Your task to perform on an android device: Go to Maps Image 0: 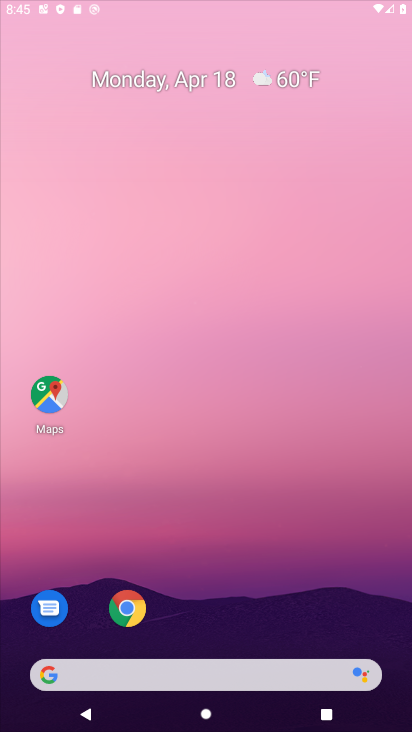
Step 0: click (237, 287)
Your task to perform on an android device: Go to Maps Image 1: 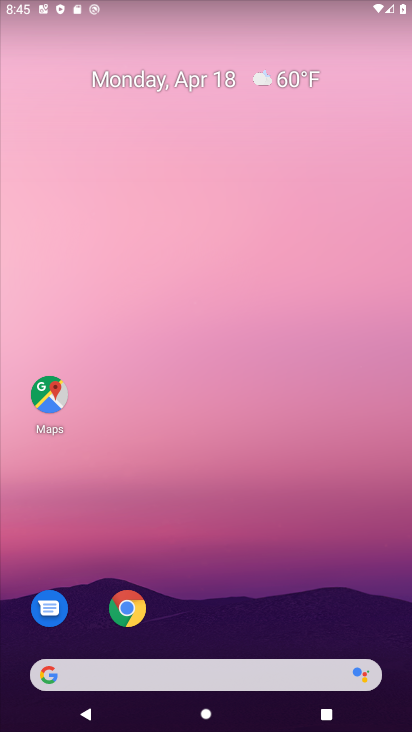
Step 1: drag from (162, 655) to (231, 391)
Your task to perform on an android device: Go to Maps Image 2: 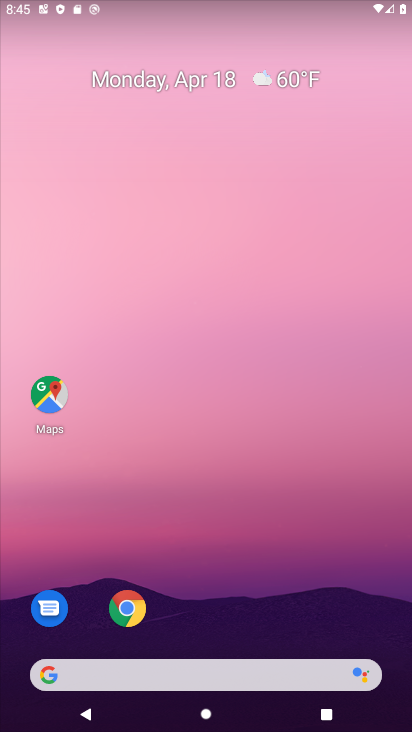
Step 2: drag from (174, 639) to (354, 41)
Your task to perform on an android device: Go to Maps Image 3: 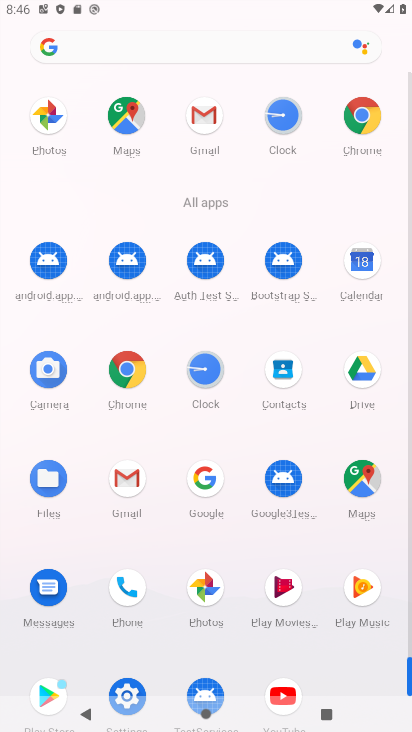
Step 3: click (366, 475)
Your task to perform on an android device: Go to Maps Image 4: 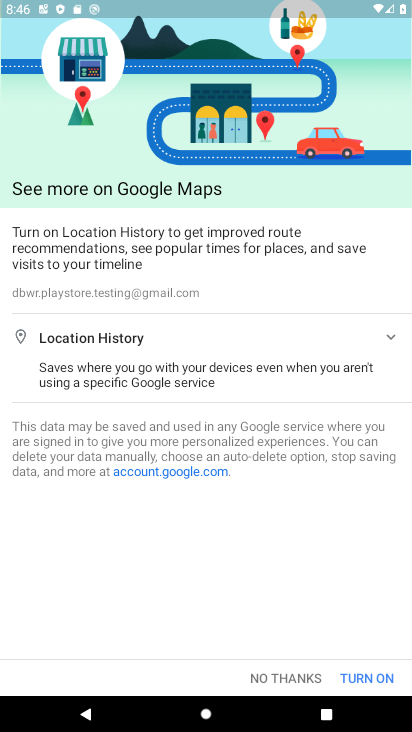
Step 4: click (352, 669)
Your task to perform on an android device: Go to Maps Image 5: 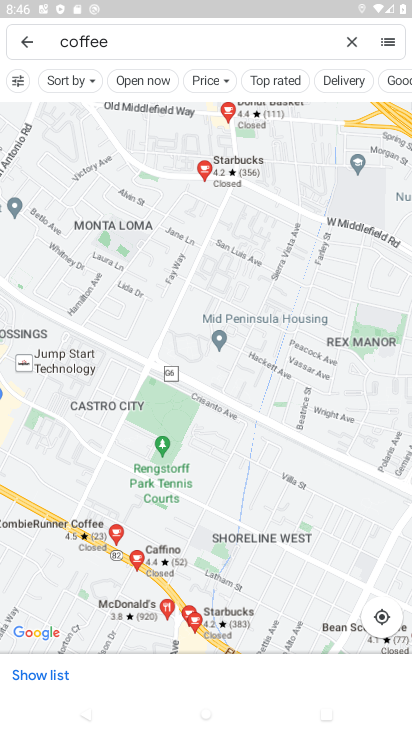
Step 5: click (29, 37)
Your task to perform on an android device: Go to Maps Image 6: 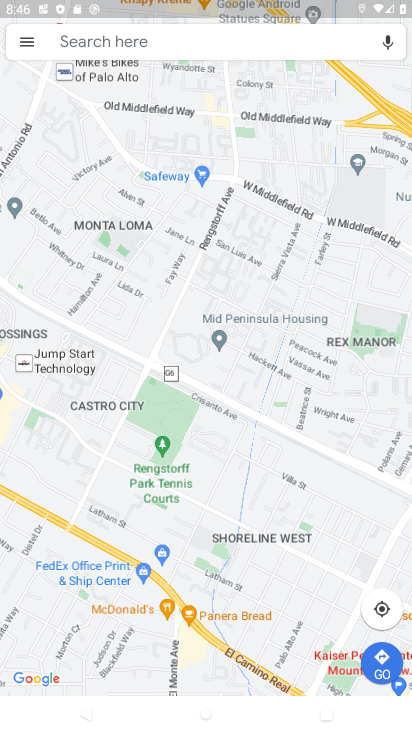
Step 6: task complete